Your task to perform on an android device: check battery use Image 0: 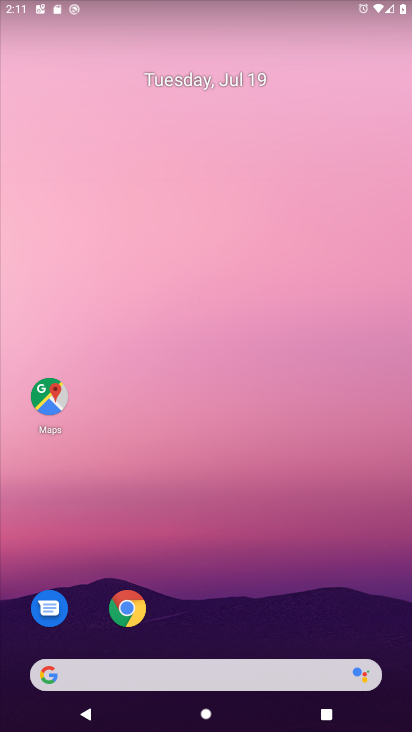
Step 0: drag from (225, 634) to (306, 203)
Your task to perform on an android device: check battery use Image 1: 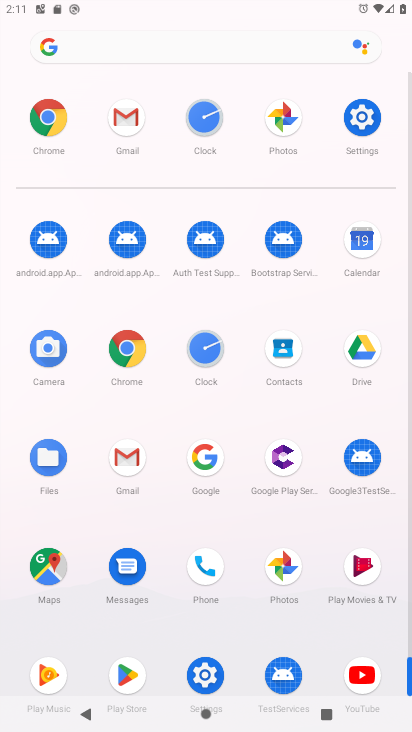
Step 1: click (205, 670)
Your task to perform on an android device: check battery use Image 2: 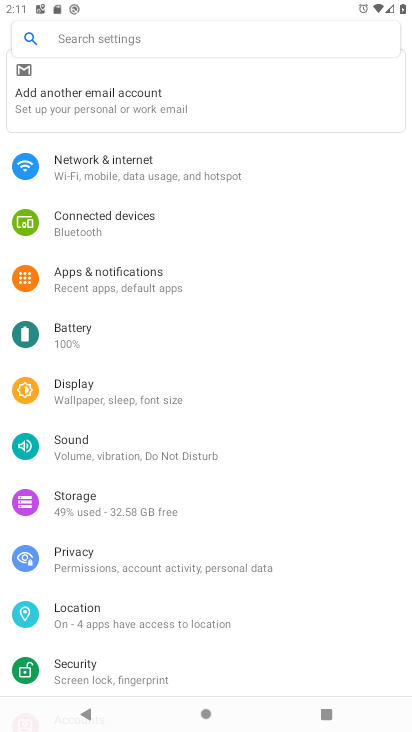
Step 2: click (134, 345)
Your task to perform on an android device: check battery use Image 3: 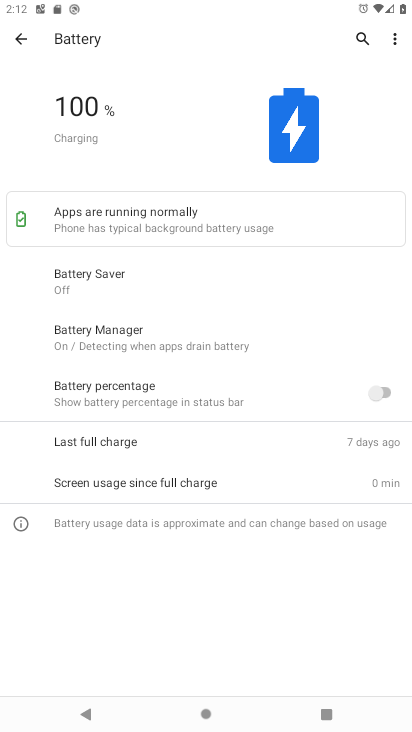
Step 3: click (389, 43)
Your task to perform on an android device: check battery use Image 4: 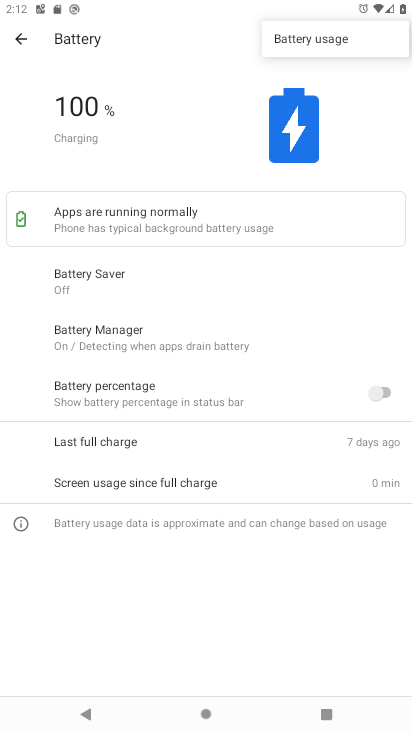
Step 4: click (325, 47)
Your task to perform on an android device: check battery use Image 5: 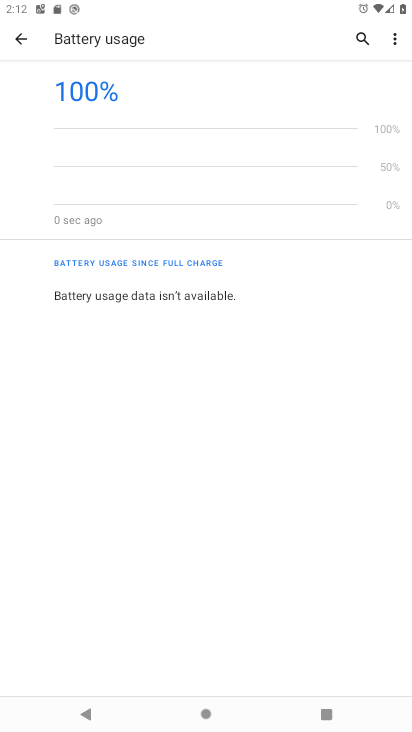
Step 5: task complete